Your task to perform on an android device: create a new album in the google photos Image 0: 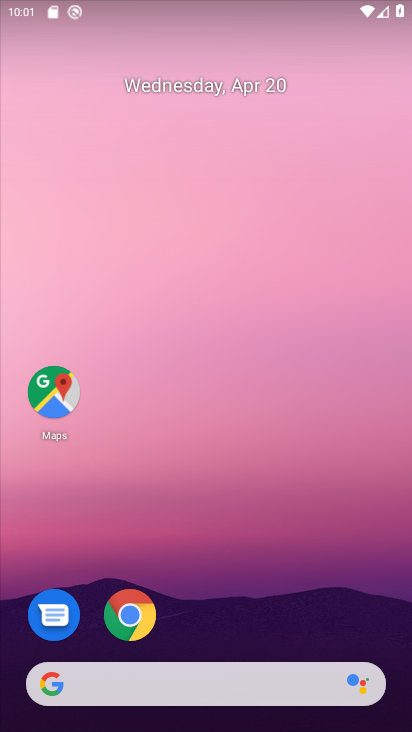
Step 0: drag from (370, 601) to (394, 173)
Your task to perform on an android device: create a new album in the google photos Image 1: 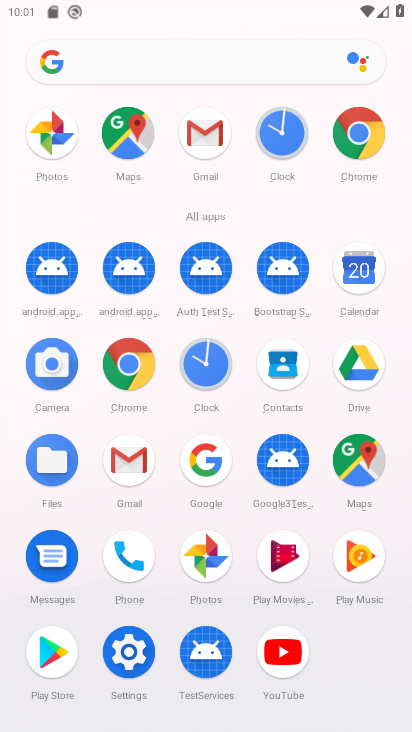
Step 1: click (209, 551)
Your task to perform on an android device: create a new album in the google photos Image 2: 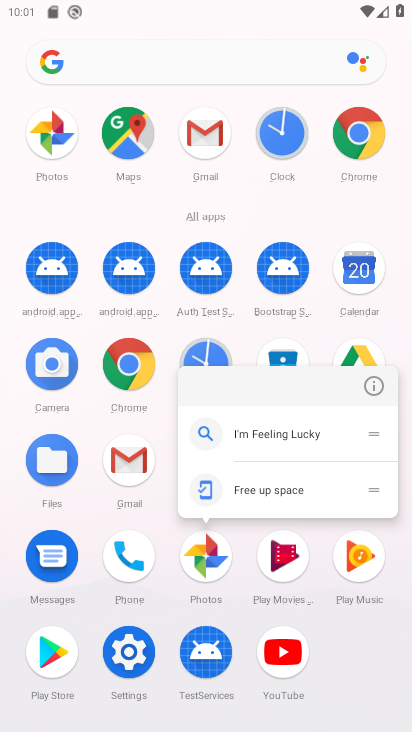
Step 2: click (206, 552)
Your task to perform on an android device: create a new album in the google photos Image 3: 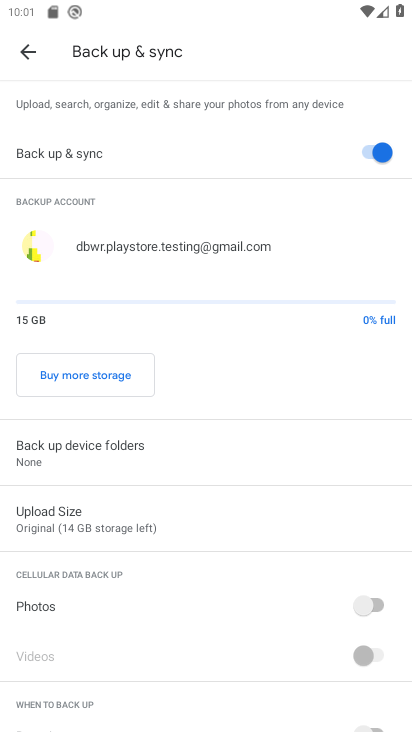
Step 3: click (35, 57)
Your task to perform on an android device: create a new album in the google photos Image 4: 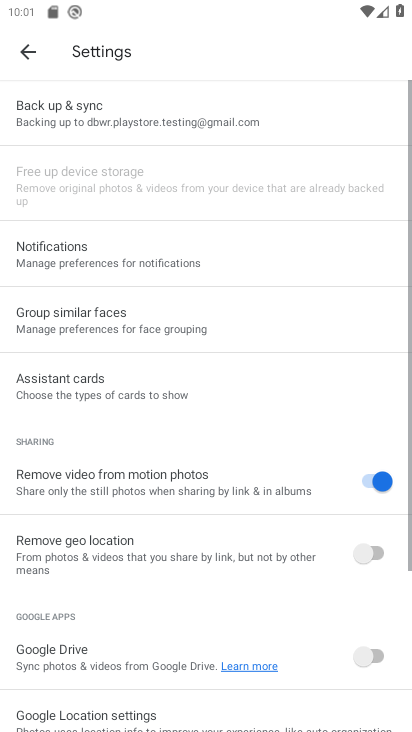
Step 4: click (33, 57)
Your task to perform on an android device: create a new album in the google photos Image 5: 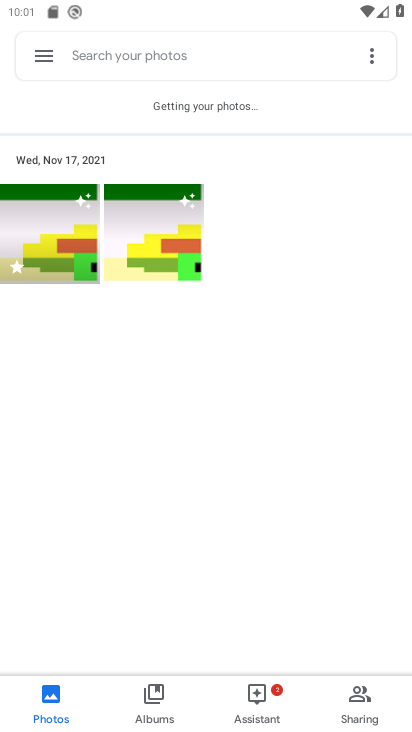
Step 5: click (158, 700)
Your task to perform on an android device: create a new album in the google photos Image 6: 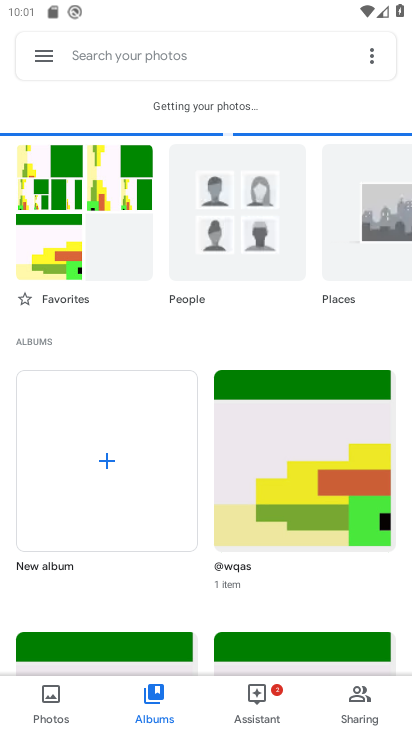
Step 6: click (109, 454)
Your task to perform on an android device: create a new album in the google photos Image 7: 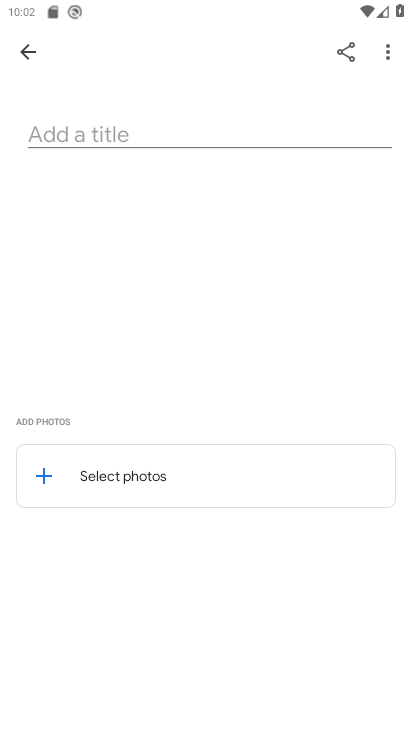
Step 7: click (85, 135)
Your task to perform on an android device: create a new album in the google photos Image 8: 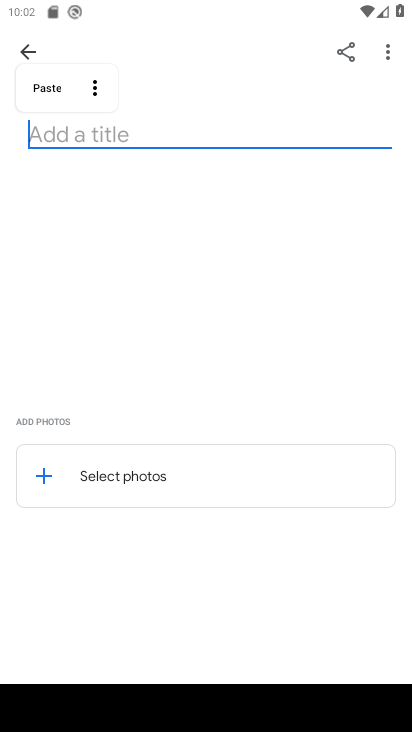
Step 8: type "natural"
Your task to perform on an android device: create a new album in the google photos Image 9: 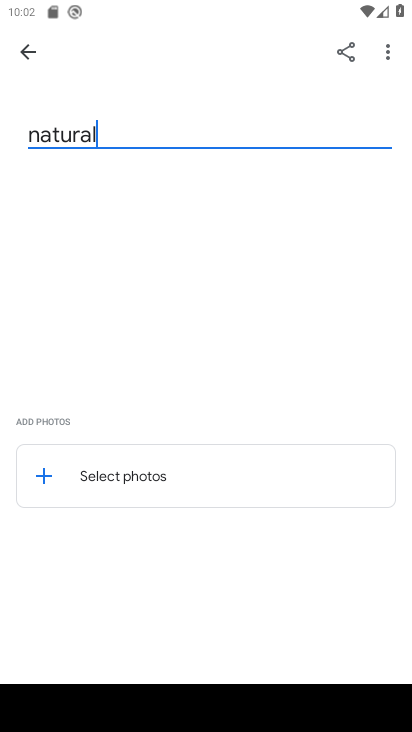
Step 9: click (35, 474)
Your task to perform on an android device: create a new album in the google photos Image 10: 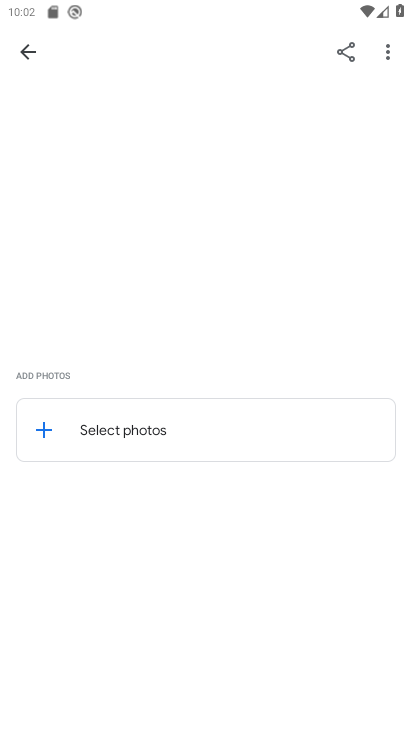
Step 10: click (47, 430)
Your task to perform on an android device: create a new album in the google photos Image 11: 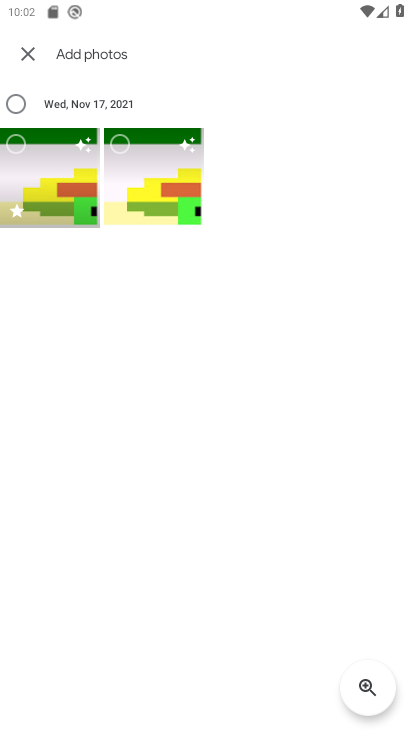
Step 11: click (20, 149)
Your task to perform on an android device: create a new album in the google photos Image 12: 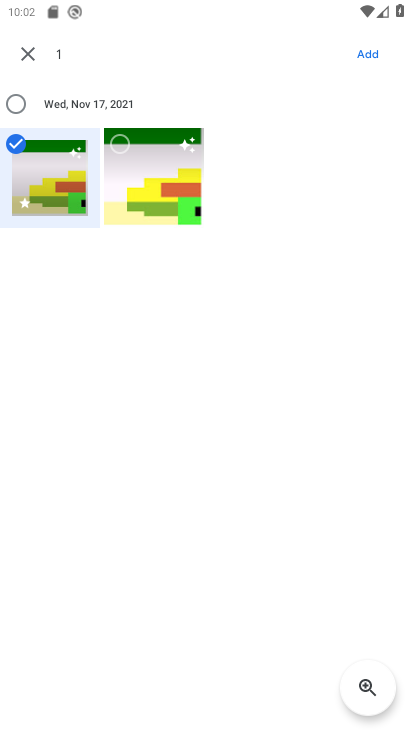
Step 12: click (377, 50)
Your task to perform on an android device: create a new album in the google photos Image 13: 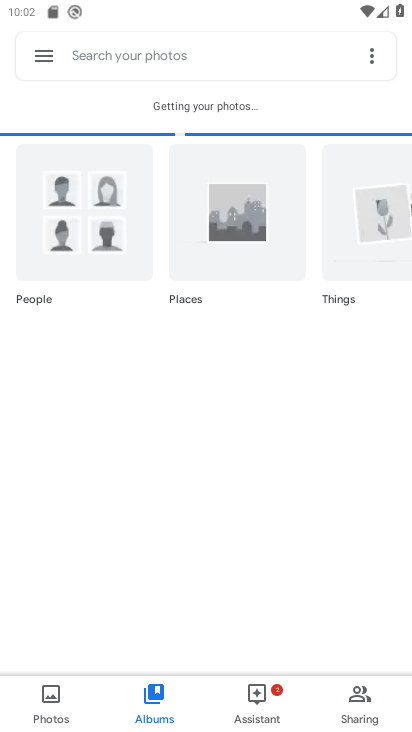
Step 13: task complete